Your task to perform on an android device: change notifications settings Image 0: 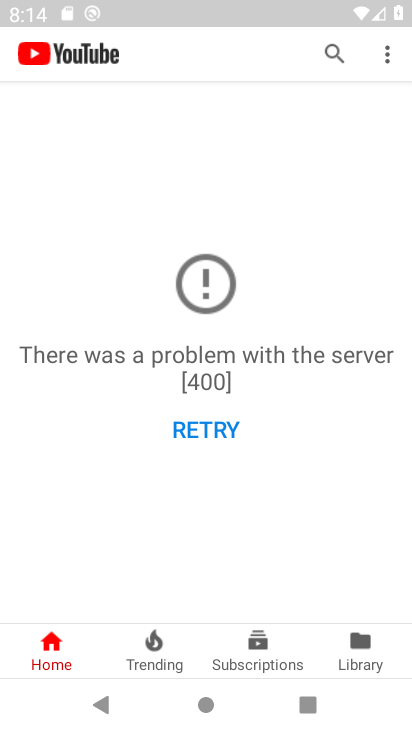
Step 0: press home button
Your task to perform on an android device: change notifications settings Image 1: 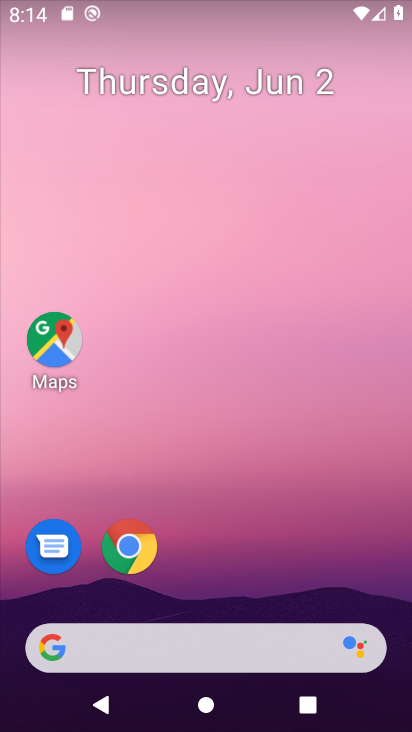
Step 1: drag from (266, 632) to (193, 92)
Your task to perform on an android device: change notifications settings Image 2: 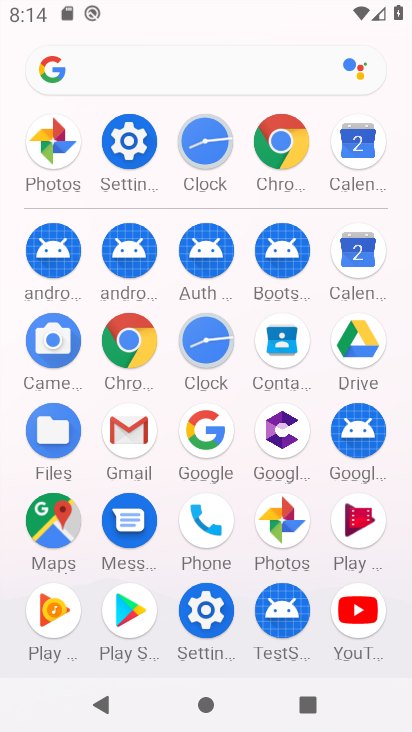
Step 2: click (130, 153)
Your task to perform on an android device: change notifications settings Image 3: 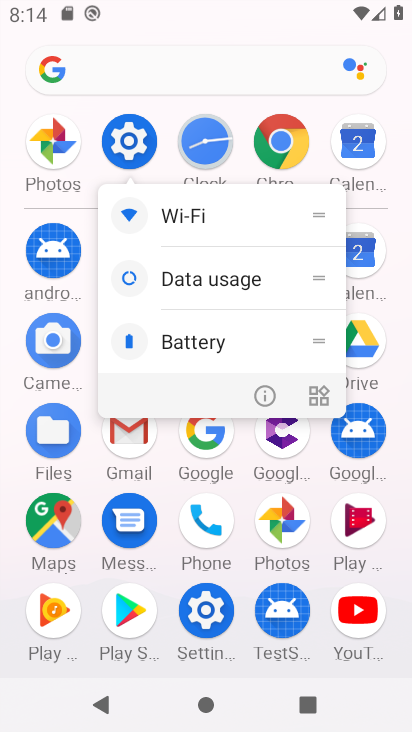
Step 3: click (198, 281)
Your task to perform on an android device: change notifications settings Image 4: 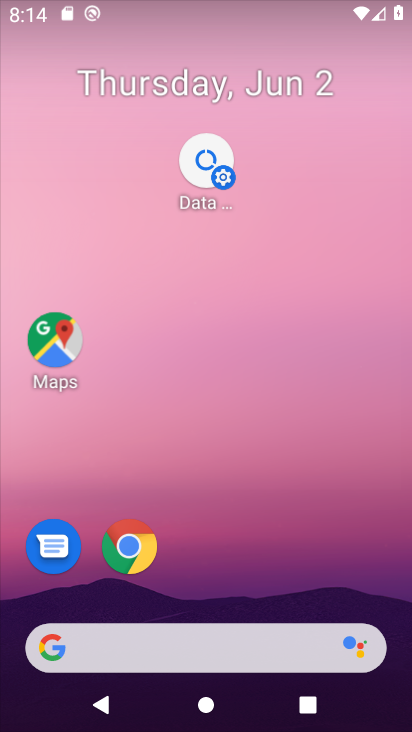
Step 4: drag from (239, 267) to (203, 5)
Your task to perform on an android device: change notifications settings Image 5: 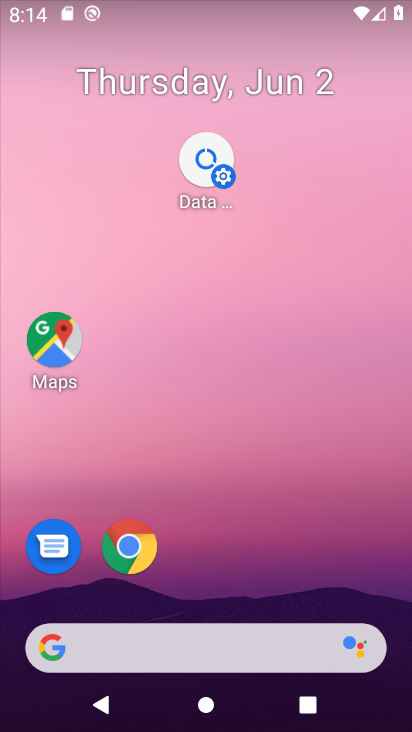
Step 5: drag from (228, 667) to (214, 118)
Your task to perform on an android device: change notifications settings Image 6: 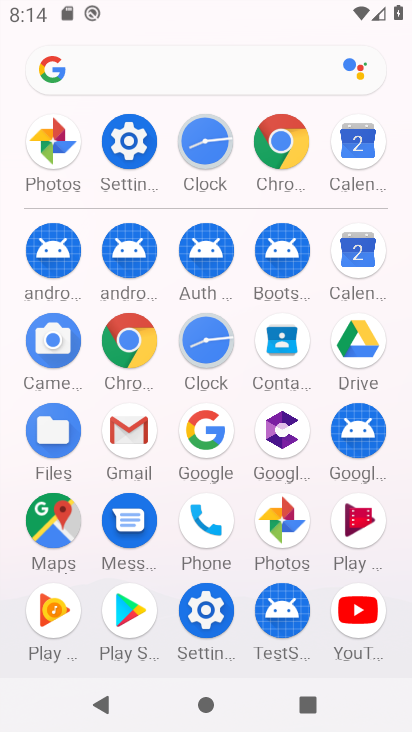
Step 6: click (134, 148)
Your task to perform on an android device: change notifications settings Image 7: 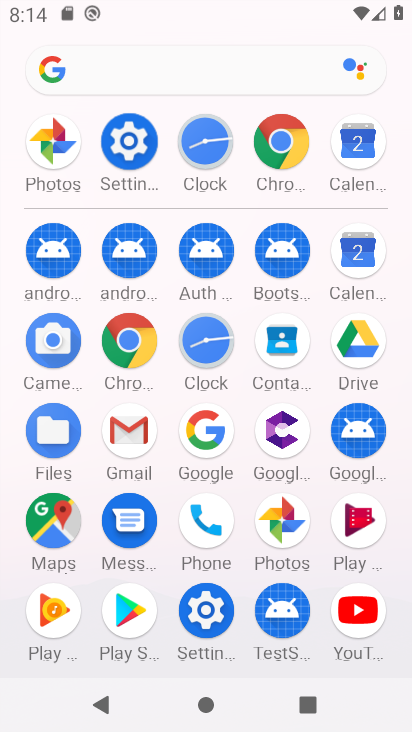
Step 7: click (134, 148)
Your task to perform on an android device: change notifications settings Image 8: 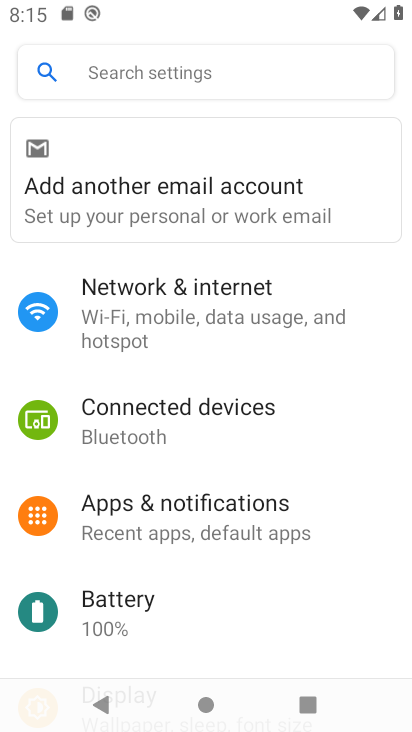
Step 8: click (205, 514)
Your task to perform on an android device: change notifications settings Image 9: 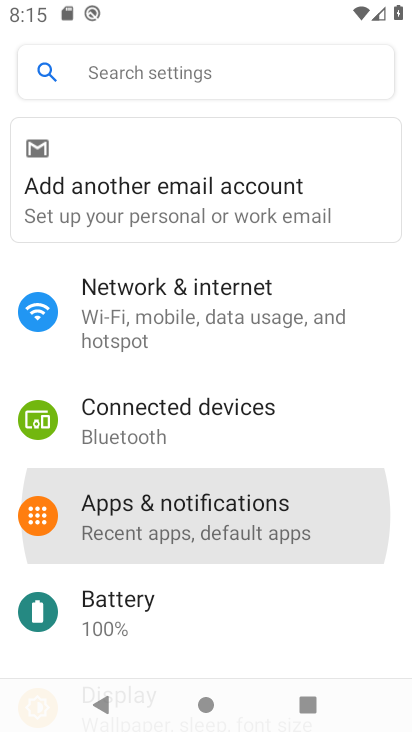
Step 9: click (202, 512)
Your task to perform on an android device: change notifications settings Image 10: 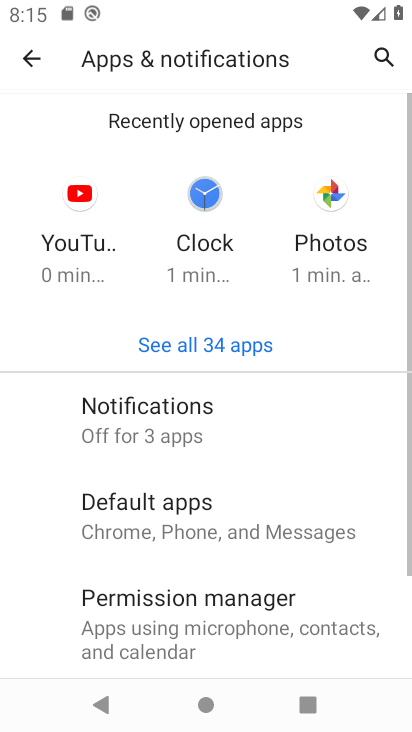
Step 10: click (170, 415)
Your task to perform on an android device: change notifications settings Image 11: 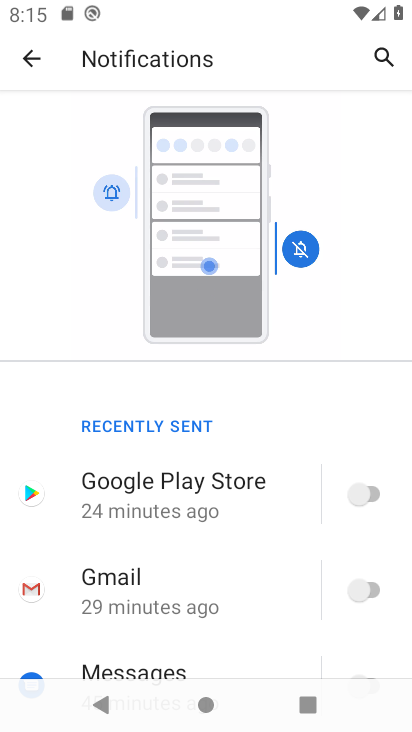
Step 11: task complete